Your task to perform on an android device: Go to privacy settings Image 0: 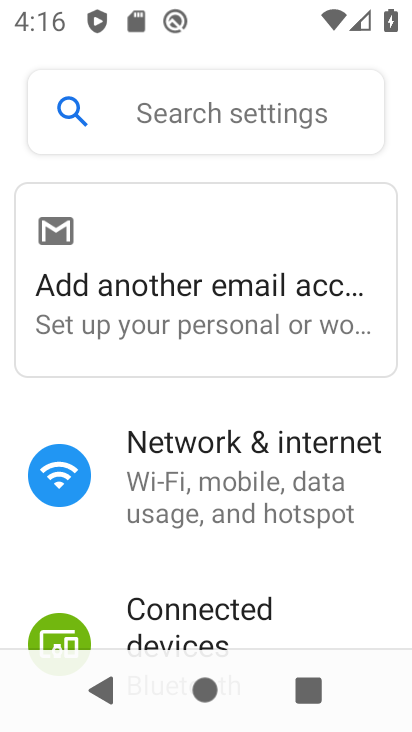
Step 0: press home button
Your task to perform on an android device: Go to privacy settings Image 1: 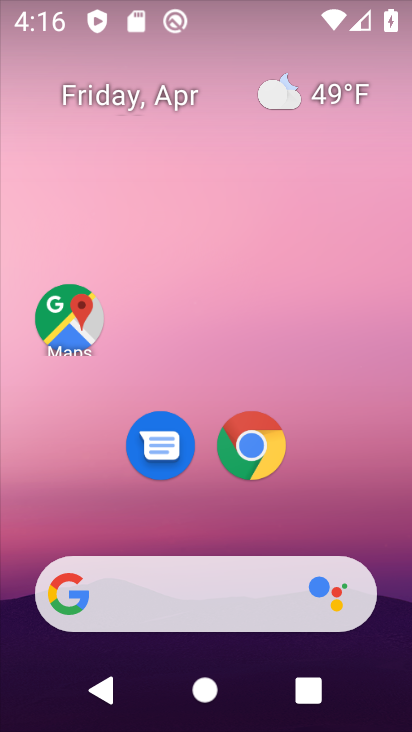
Step 1: drag from (314, 504) to (235, 25)
Your task to perform on an android device: Go to privacy settings Image 2: 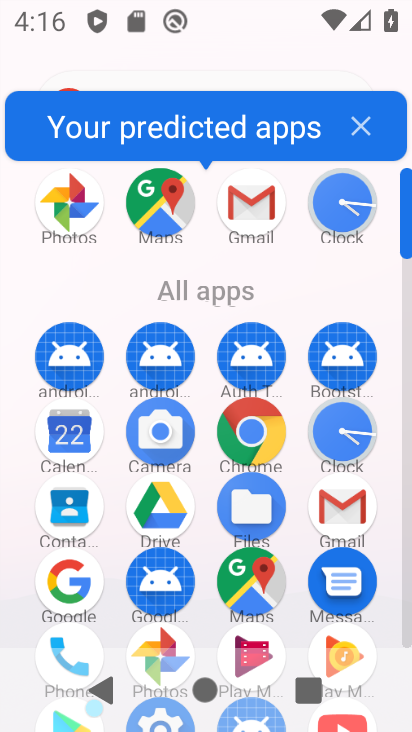
Step 2: drag from (203, 583) to (252, 324)
Your task to perform on an android device: Go to privacy settings Image 3: 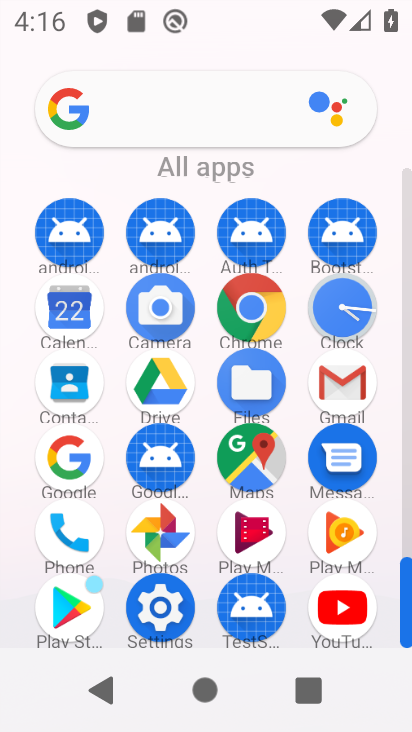
Step 3: click (166, 616)
Your task to perform on an android device: Go to privacy settings Image 4: 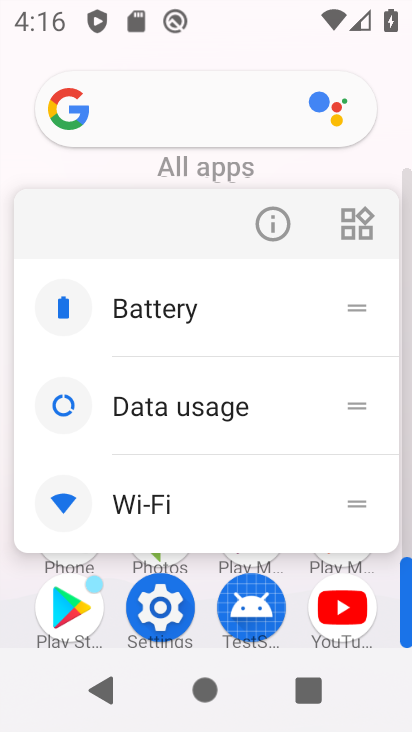
Step 4: click (167, 589)
Your task to perform on an android device: Go to privacy settings Image 5: 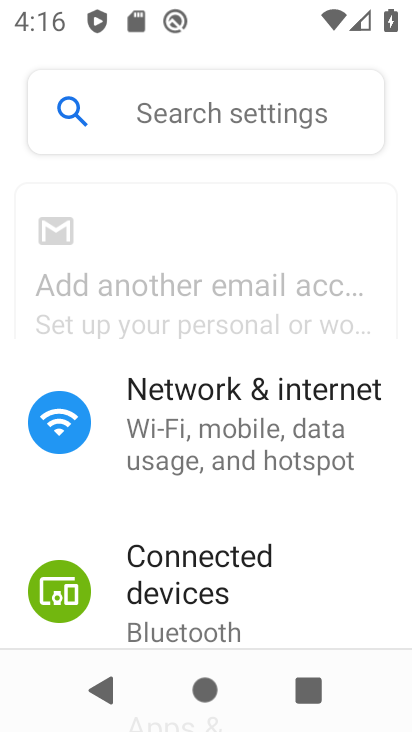
Step 5: drag from (200, 536) to (241, 124)
Your task to perform on an android device: Go to privacy settings Image 6: 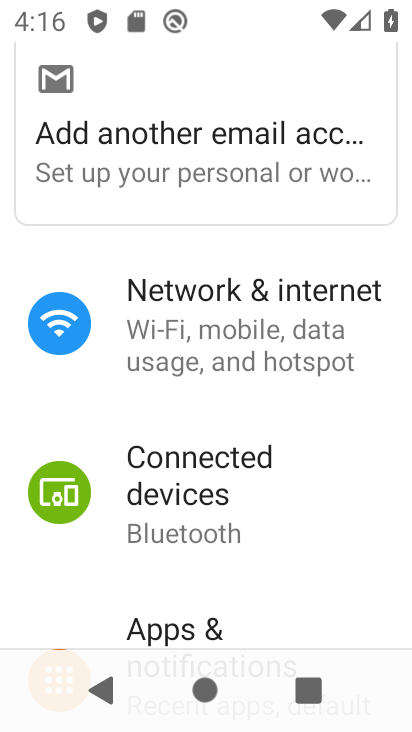
Step 6: drag from (232, 437) to (325, 34)
Your task to perform on an android device: Go to privacy settings Image 7: 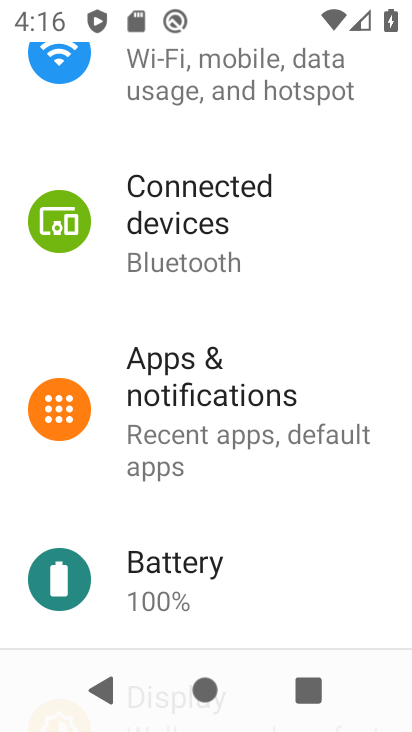
Step 7: drag from (237, 455) to (288, 147)
Your task to perform on an android device: Go to privacy settings Image 8: 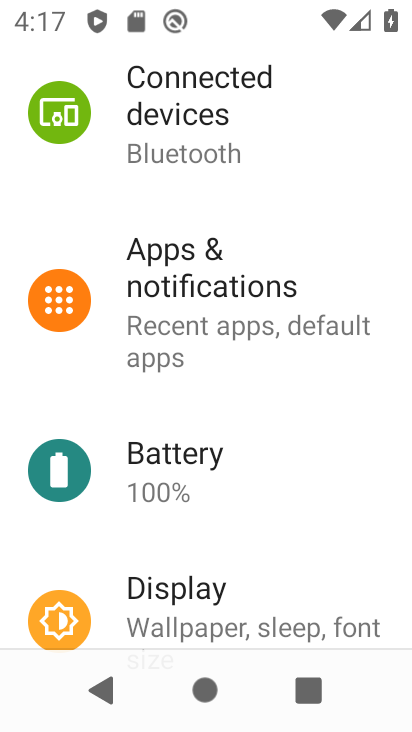
Step 8: drag from (228, 540) to (301, 227)
Your task to perform on an android device: Go to privacy settings Image 9: 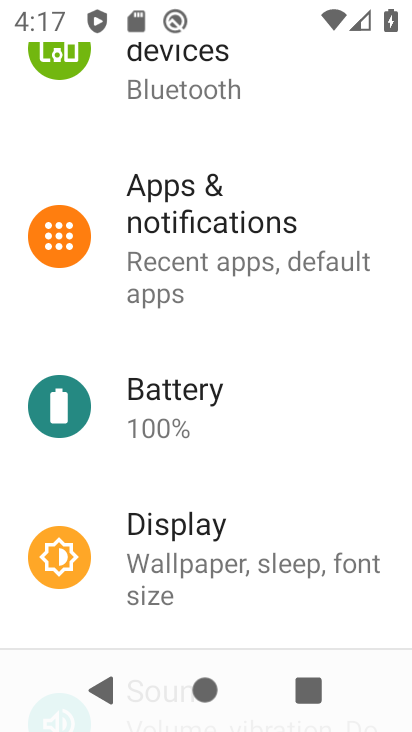
Step 9: drag from (239, 384) to (273, 169)
Your task to perform on an android device: Go to privacy settings Image 10: 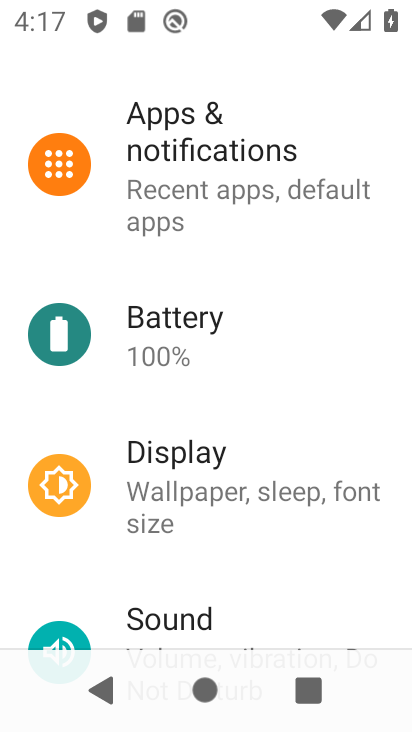
Step 10: drag from (218, 549) to (284, 193)
Your task to perform on an android device: Go to privacy settings Image 11: 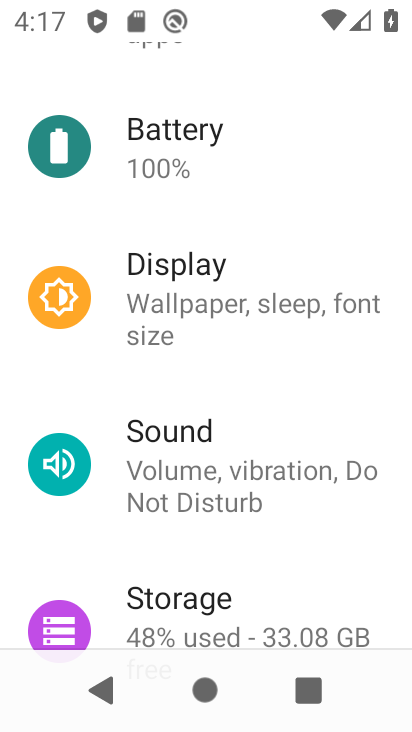
Step 11: drag from (228, 546) to (313, 176)
Your task to perform on an android device: Go to privacy settings Image 12: 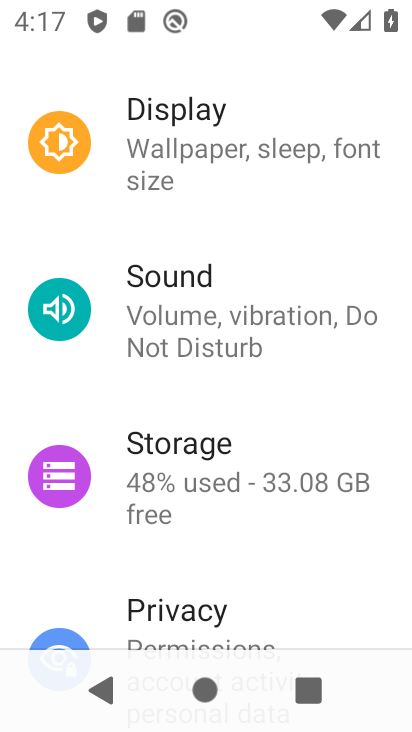
Step 12: click (193, 623)
Your task to perform on an android device: Go to privacy settings Image 13: 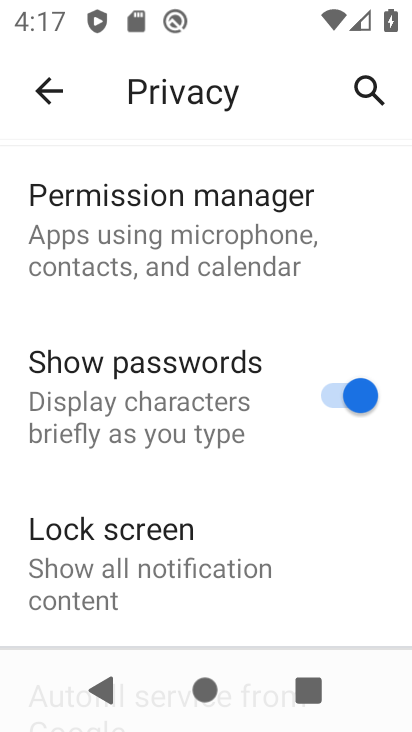
Step 13: task complete